Your task to perform on an android device: Open Yahoo.com Image 0: 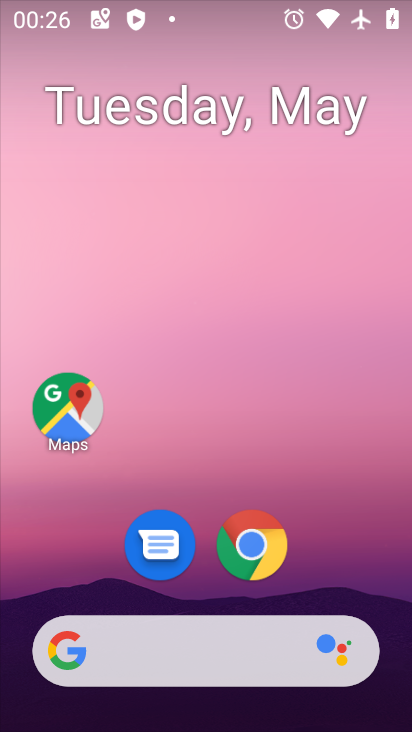
Step 0: click (238, 545)
Your task to perform on an android device: Open Yahoo.com Image 1: 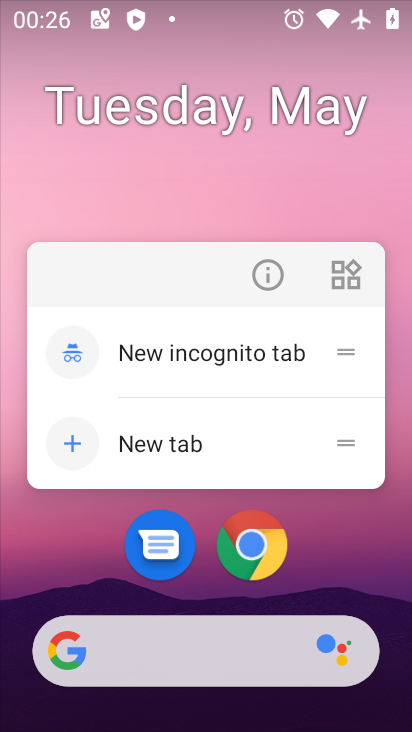
Step 1: click (252, 544)
Your task to perform on an android device: Open Yahoo.com Image 2: 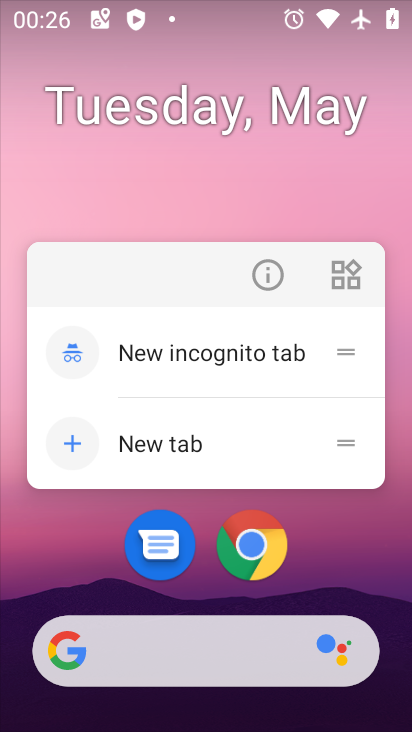
Step 2: click (250, 539)
Your task to perform on an android device: Open Yahoo.com Image 3: 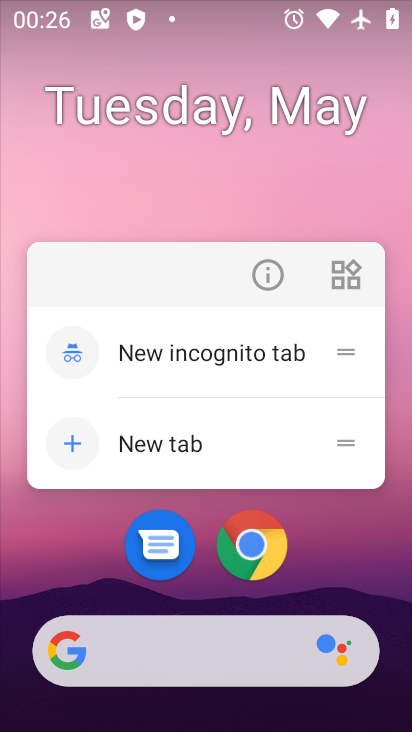
Step 3: click (250, 539)
Your task to perform on an android device: Open Yahoo.com Image 4: 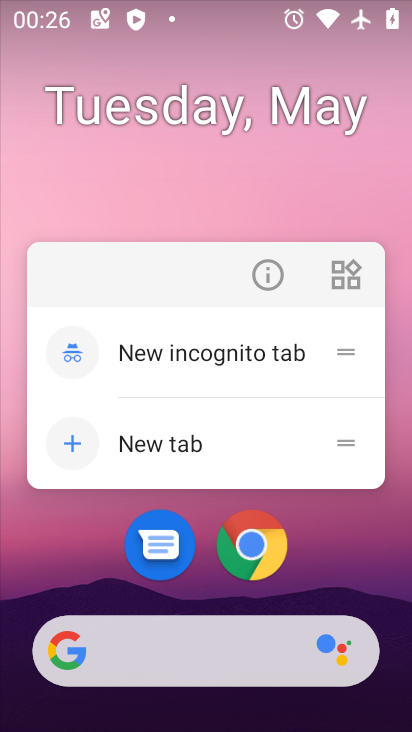
Step 4: click (250, 539)
Your task to perform on an android device: Open Yahoo.com Image 5: 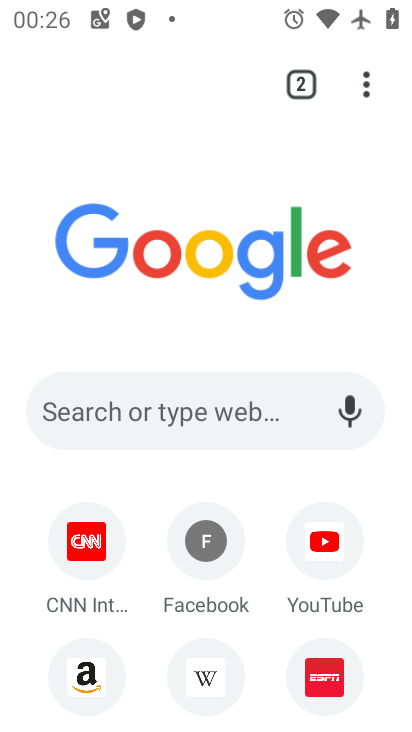
Step 5: drag from (206, 604) to (224, 314)
Your task to perform on an android device: Open Yahoo.com Image 6: 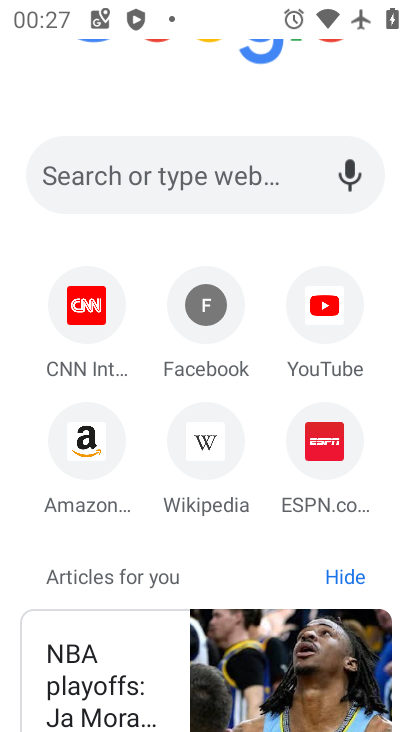
Step 6: click (261, 154)
Your task to perform on an android device: Open Yahoo.com Image 7: 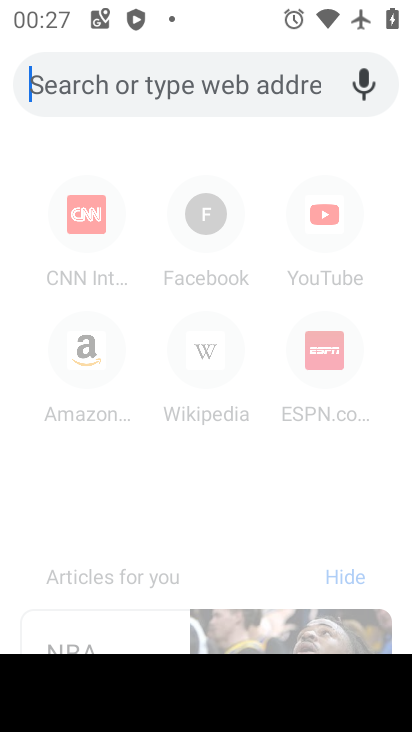
Step 7: type "yahoo.com"
Your task to perform on an android device: Open Yahoo.com Image 8: 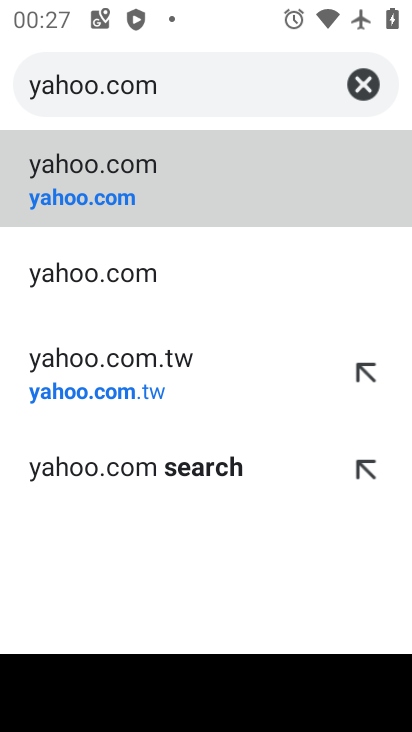
Step 8: click (152, 185)
Your task to perform on an android device: Open Yahoo.com Image 9: 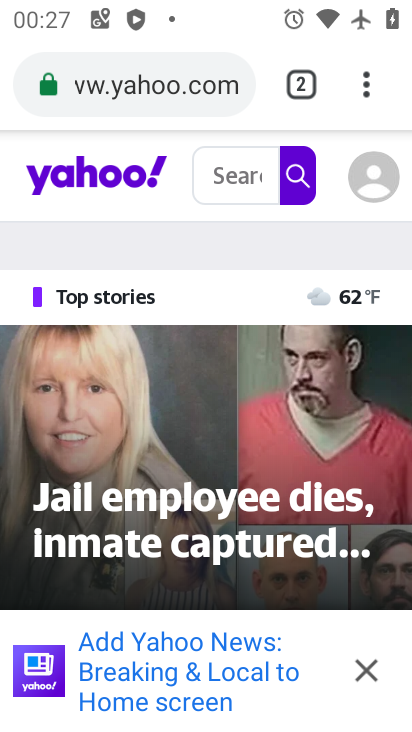
Step 9: task complete